Your task to perform on an android device: What's on my calendar today? Image 0: 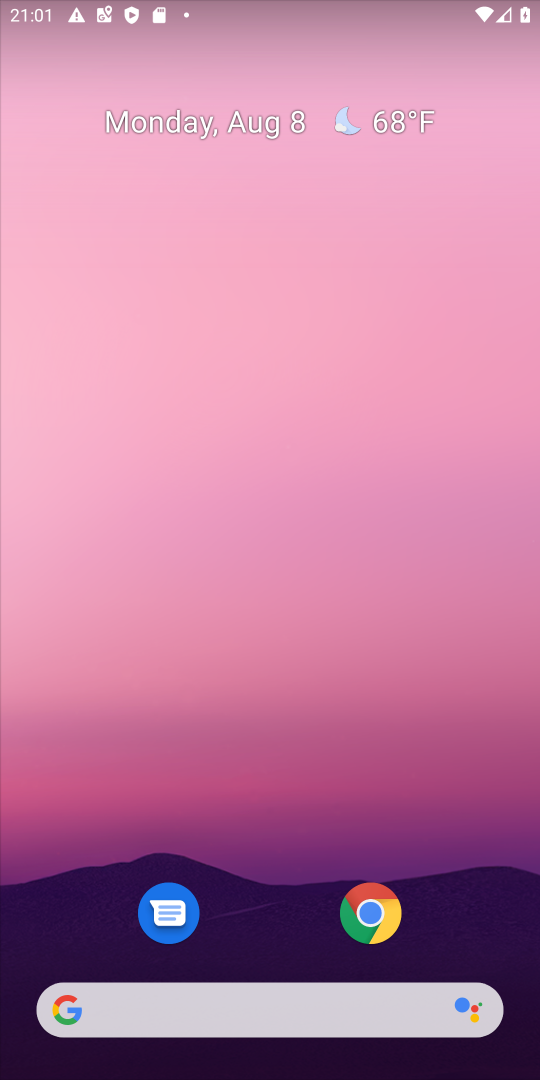
Step 0: drag from (258, 1037) to (538, 368)
Your task to perform on an android device: What's on my calendar today? Image 1: 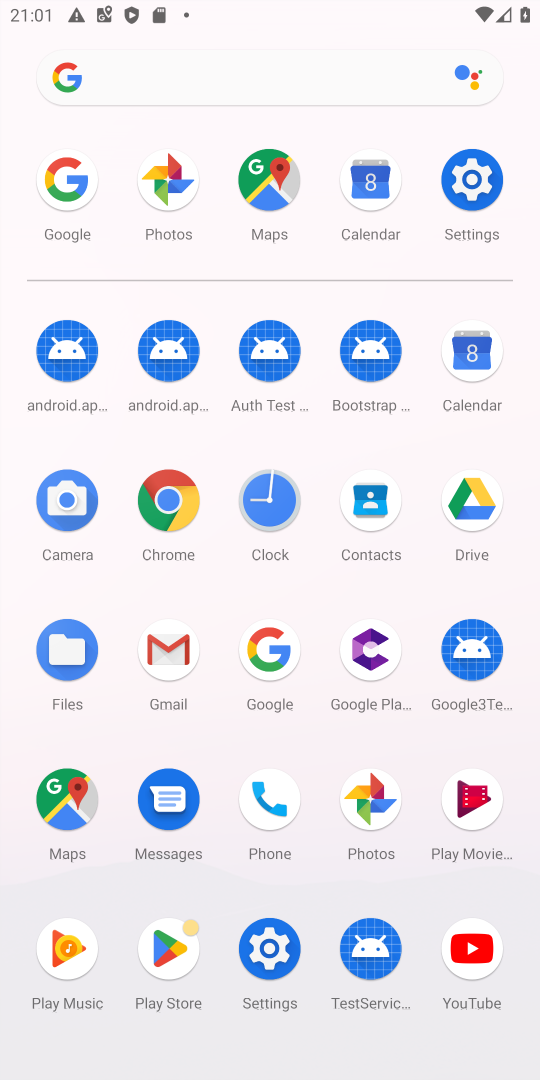
Step 1: click (472, 354)
Your task to perform on an android device: What's on my calendar today? Image 2: 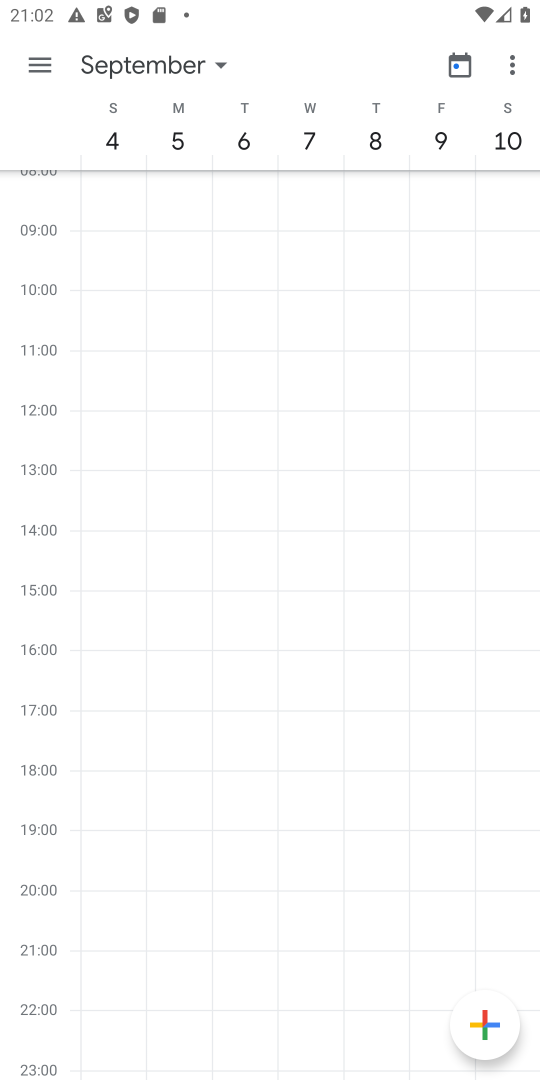
Step 2: click (462, 70)
Your task to perform on an android device: What's on my calendar today? Image 3: 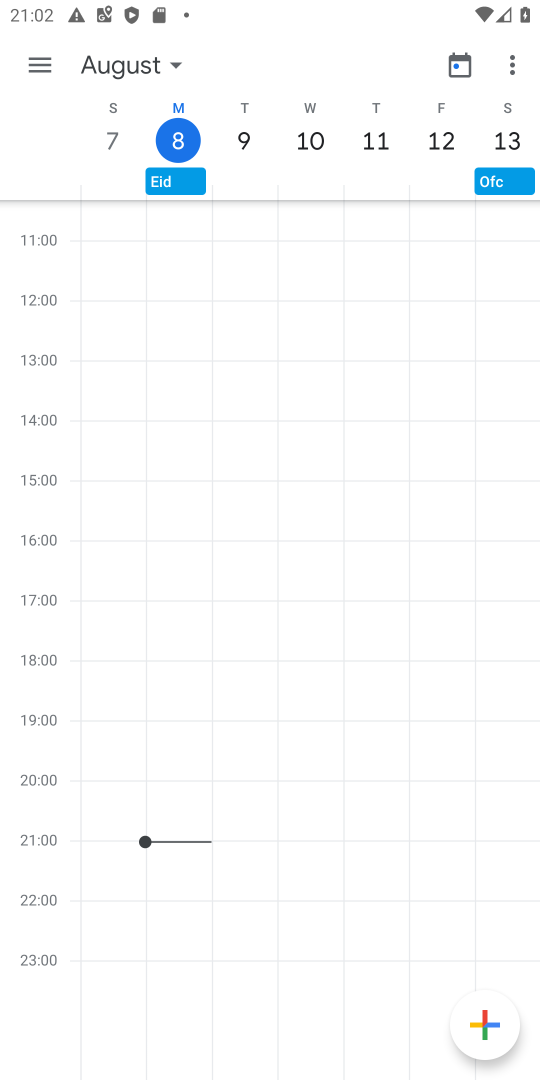
Step 3: click (178, 65)
Your task to perform on an android device: What's on my calendar today? Image 4: 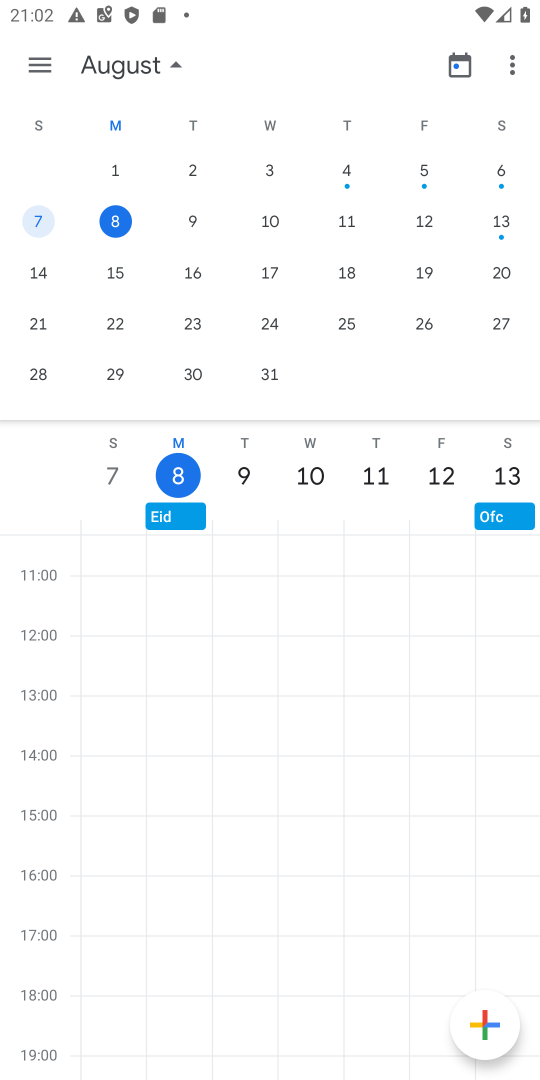
Step 4: click (107, 221)
Your task to perform on an android device: What's on my calendar today? Image 5: 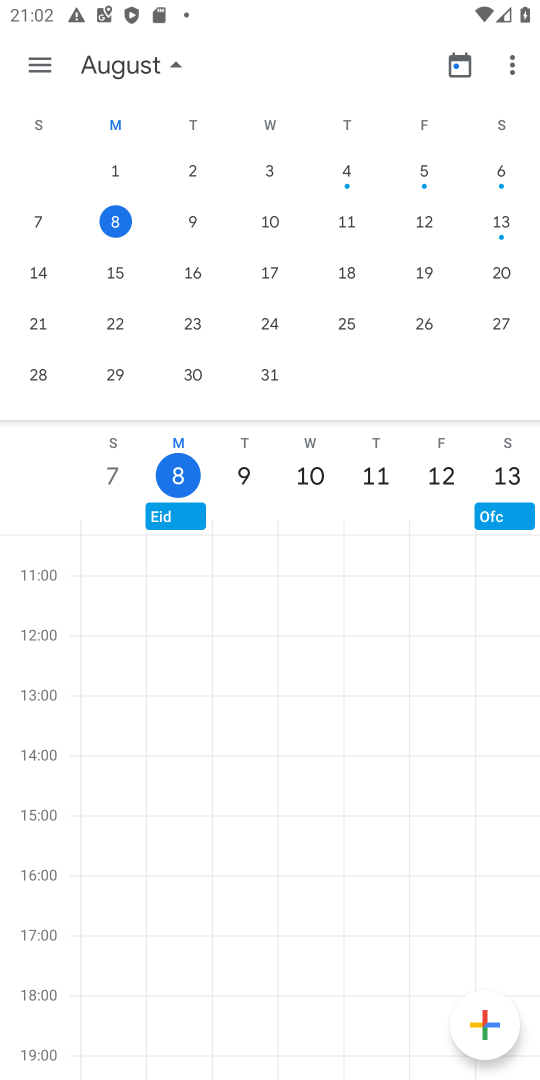
Step 5: click (47, 68)
Your task to perform on an android device: What's on my calendar today? Image 6: 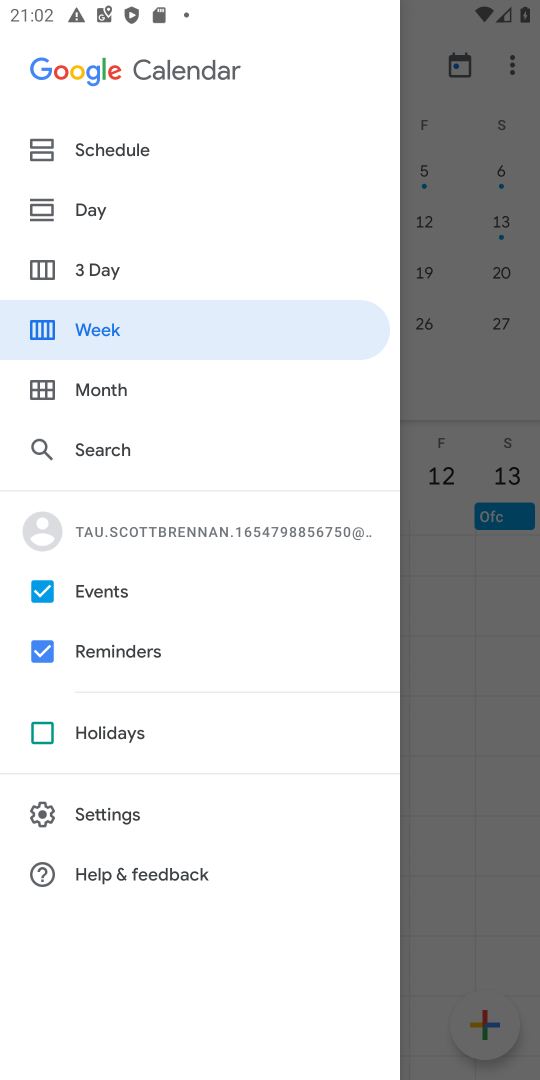
Step 6: click (107, 215)
Your task to perform on an android device: What's on my calendar today? Image 7: 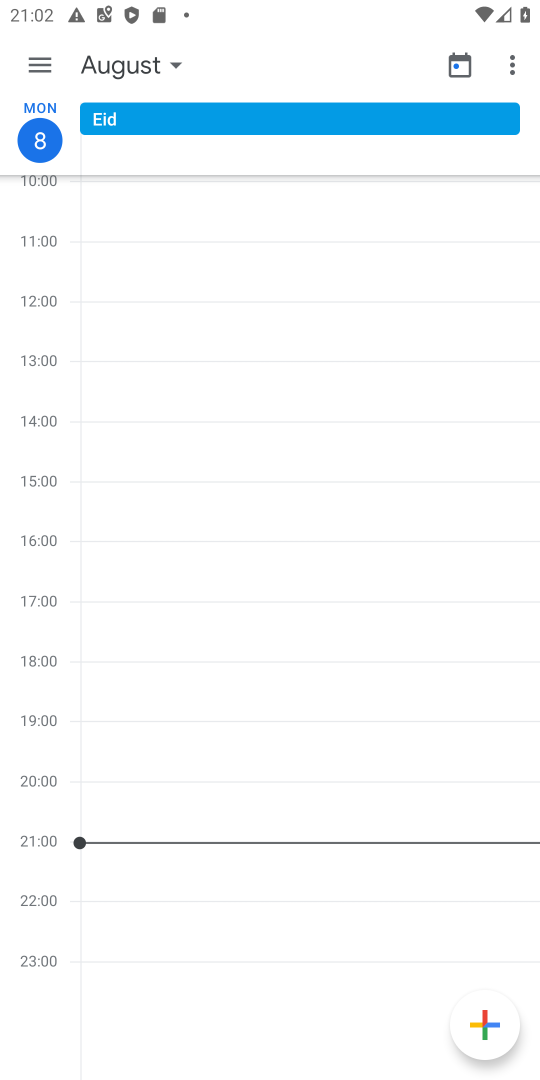
Step 7: task complete